Your task to perform on an android device: change text size in settings app Image 0: 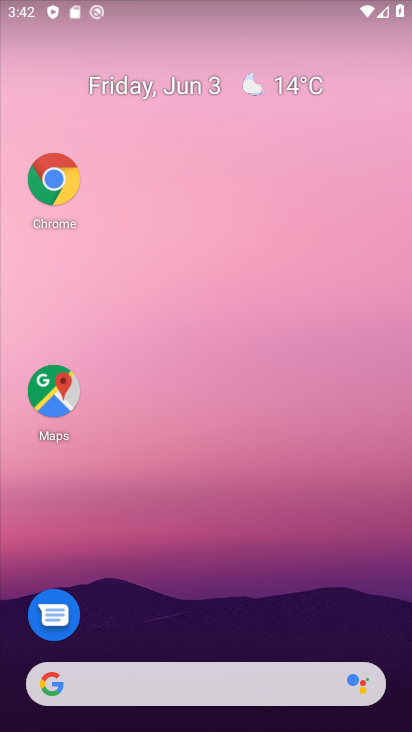
Step 0: drag from (154, 731) to (173, 88)
Your task to perform on an android device: change text size in settings app Image 1: 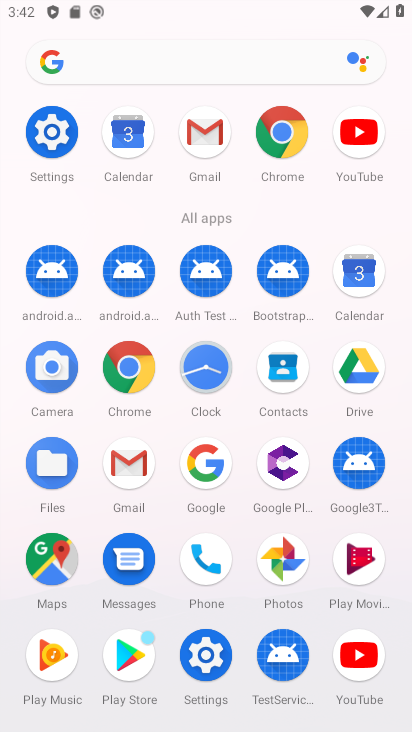
Step 1: click (207, 670)
Your task to perform on an android device: change text size in settings app Image 2: 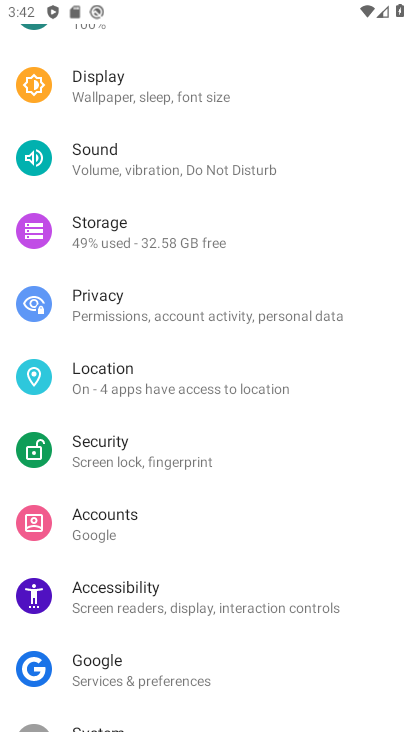
Step 2: click (168, 102)
Your task to perform on an android device: change text size in settings app Image 3: 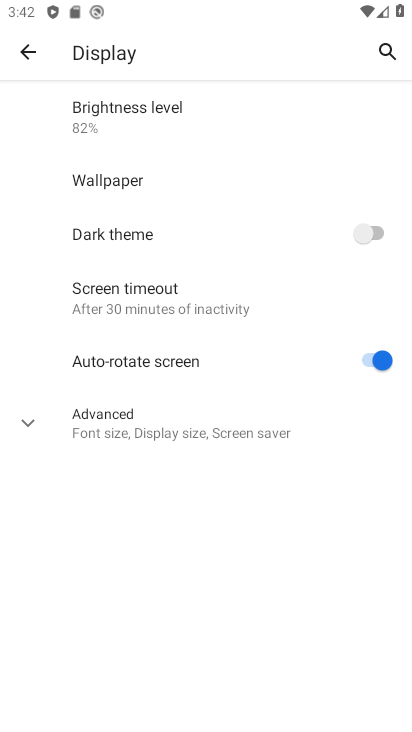
Step 3: click (132, 421)
Your task to perform on an android device: change text size in settings app Image 4: 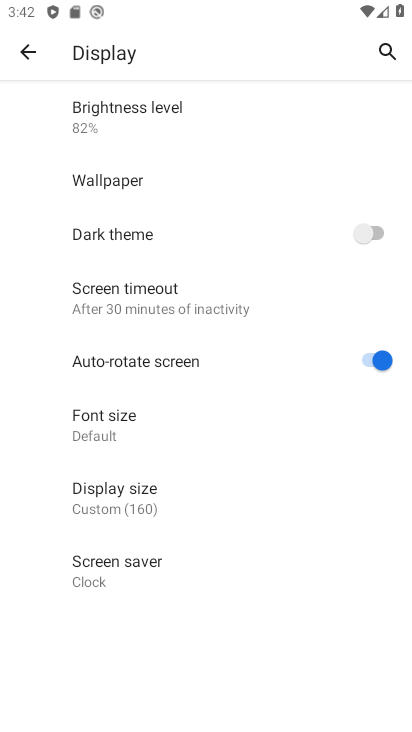
Step 4: click (117, 439)
Your task to perform on an android device: change text size in settings app Image 5: 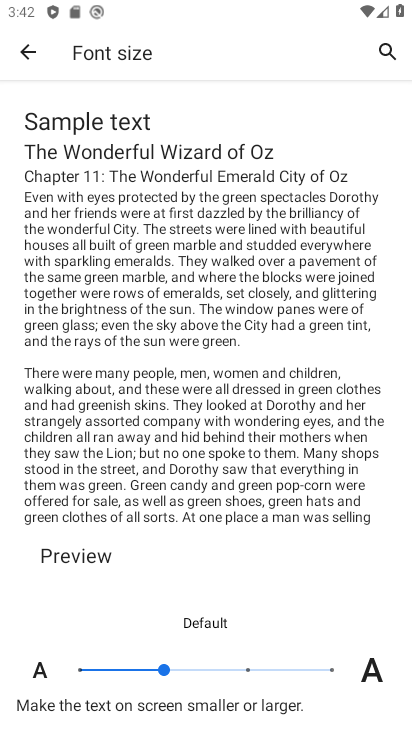
Step 5: click (83, 668)
Your task to perform on an android device: change text size in settings app Image 6: 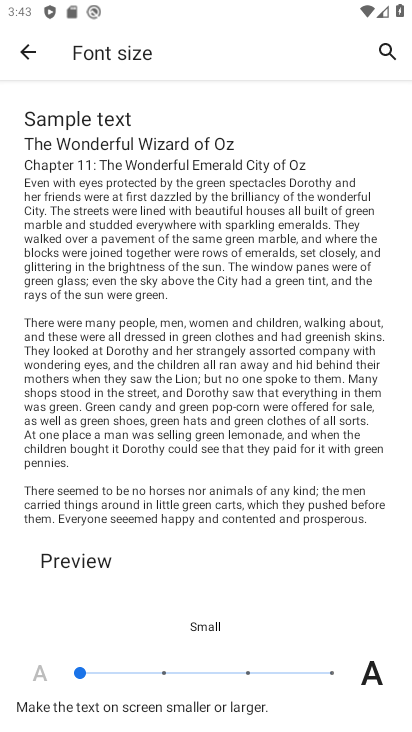
Step 6: task complete